Your task to perform on an android device: Open display settings Image 0: 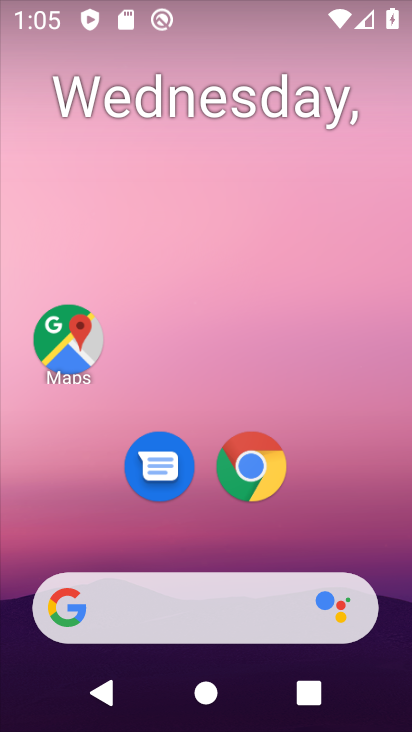
Step 0: press home button
Your task to perform on an android device: Open display settings Image 1: 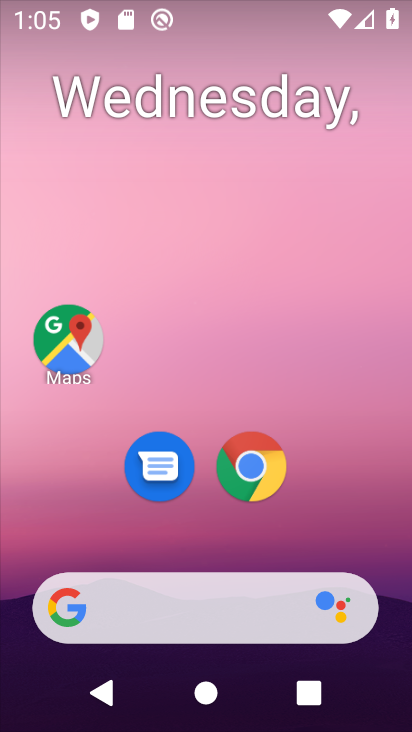
Step 1: drag from (369, 489) to (367, 93)
Your task to perform on an android device: Open display settings Image 2: 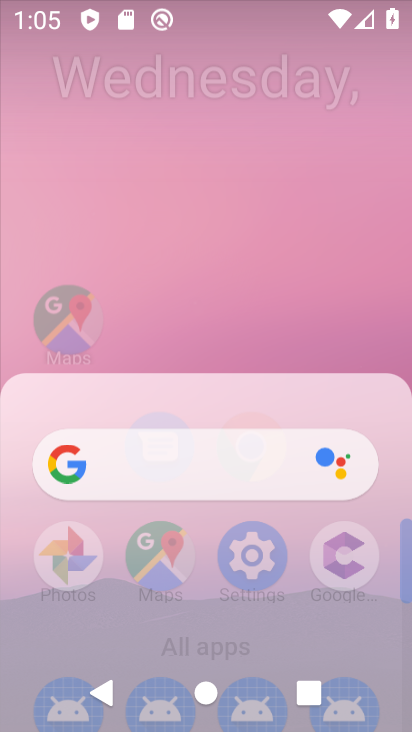
Step 2: click (362, 66)
Your task to perform on an android device: Open display settings Image 3: 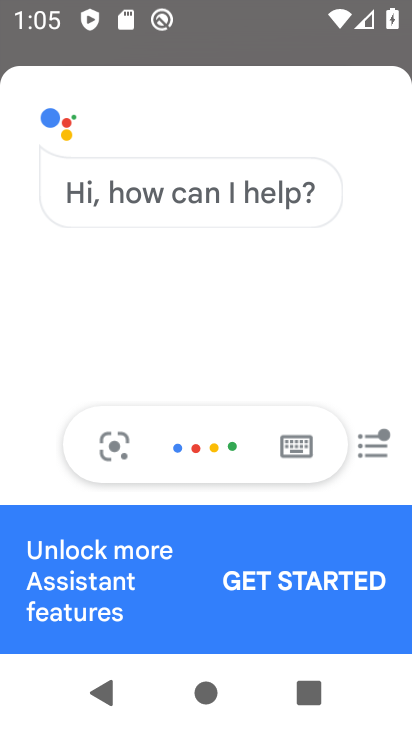
Step 3: drag from (407, 190) to (355, 714)
Your task to perform on an android device: Open display settings Image 4: 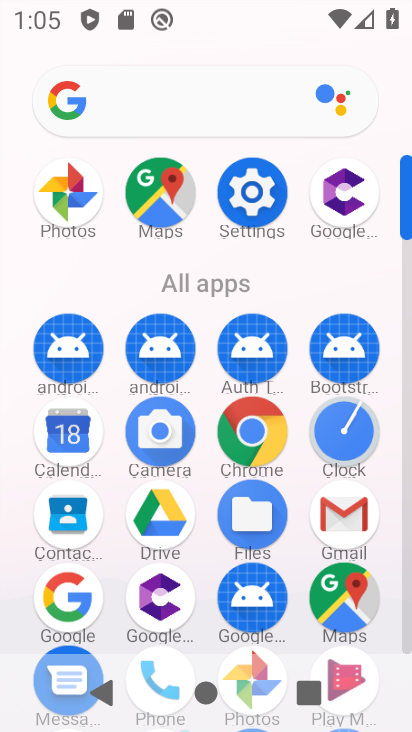
Step 4: drag from (407, 192) to (379, 556)
Your task to perform on an android device: Open display settings Image 5: 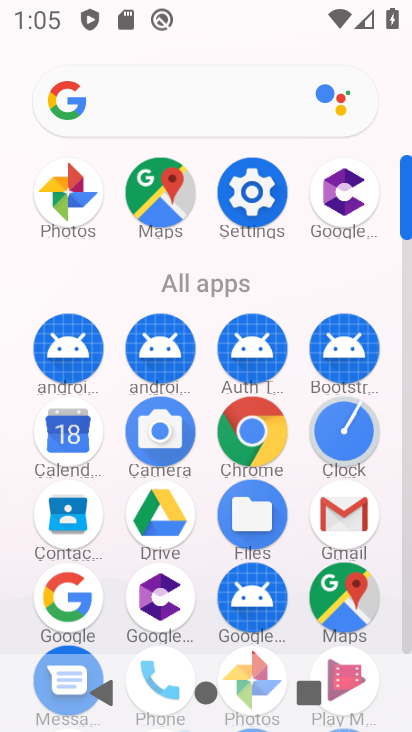
Step 5: click (406, 646)
Your task to perform on an android device: Open display settings Image 6: 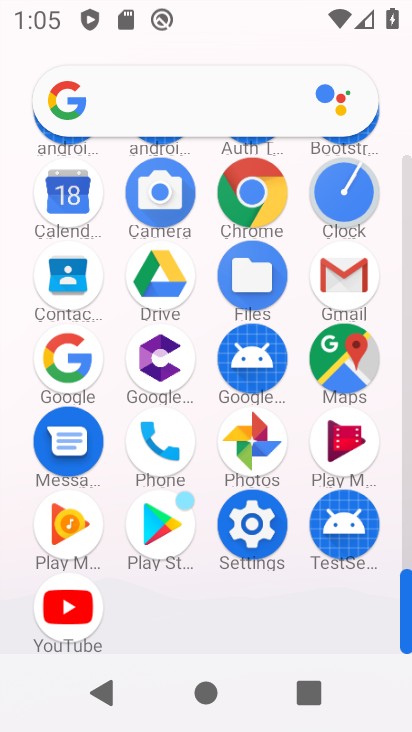
Step 6: click (243, 515)
Your task to perform on an android device: Open display settings Image 7: 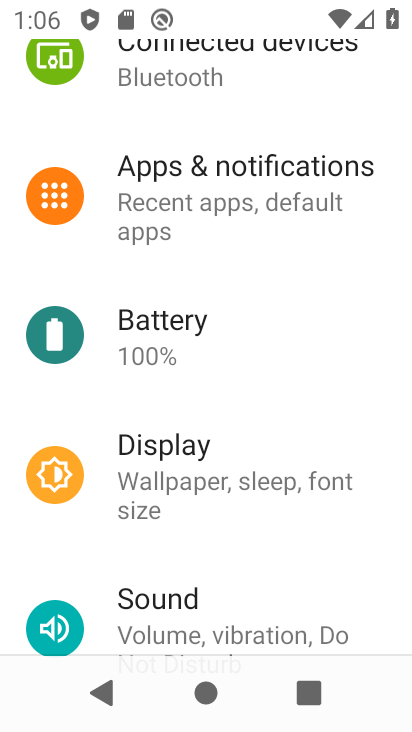
Step 7: click (223, 497)
Your task to perform on an android device: Open display settings Image 8: 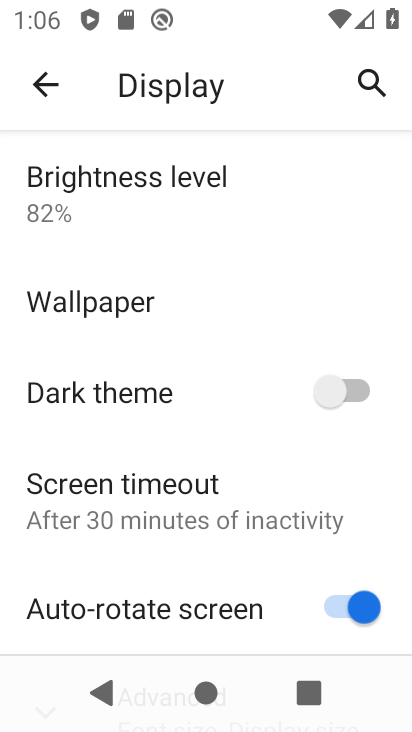
Step 8: task complete